Your task to perform on an android device: check google app version Image 0: 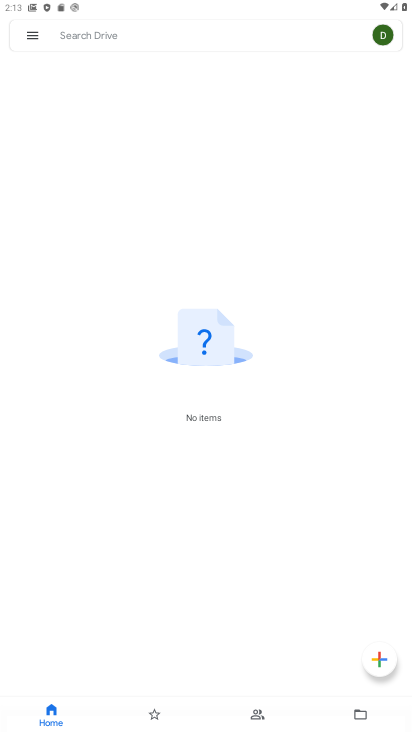
Step 0: press home button
Your task to perform on an android device: check google app version Image 1: 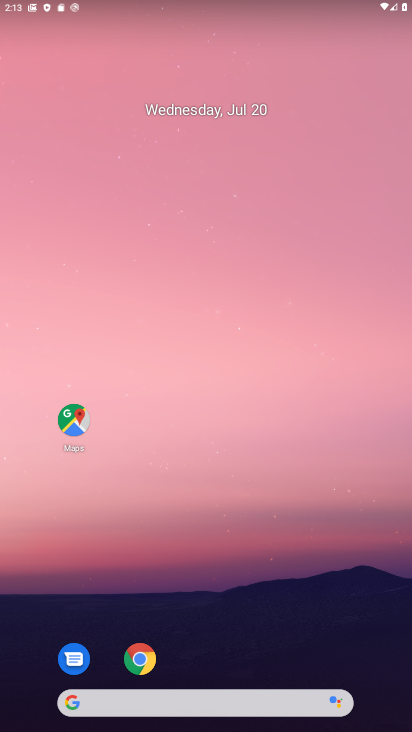
Step 1: click (145, 654)
Your task to perform on an android device: check google app version Image 2: 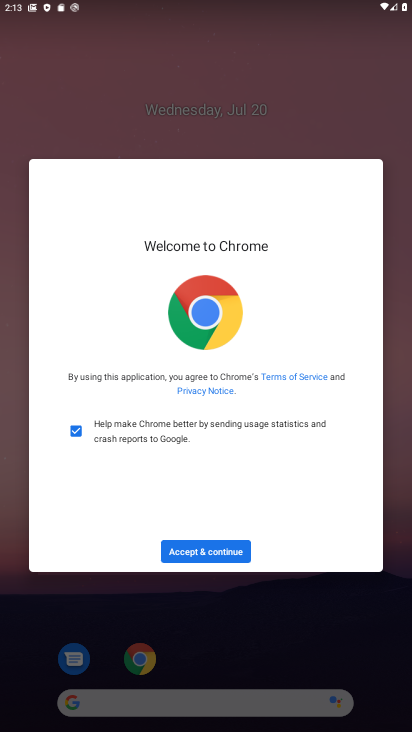
Step 2: click (212, 552)
Your task to perform on an android device: check google app version Image 3: 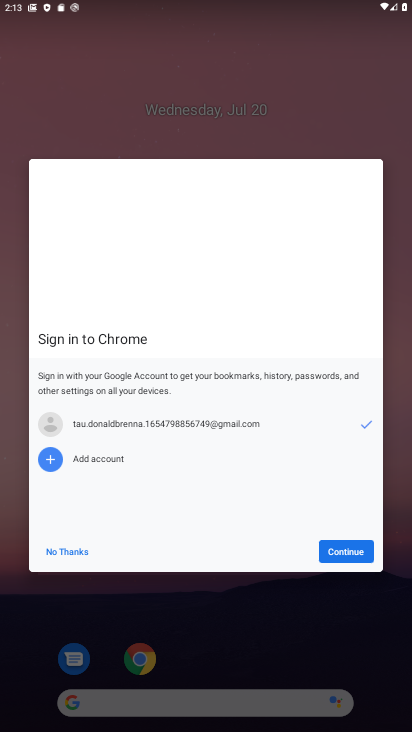
Step 3: click (344, 558)
Your task to perform on an android device: check google app version Image 4: 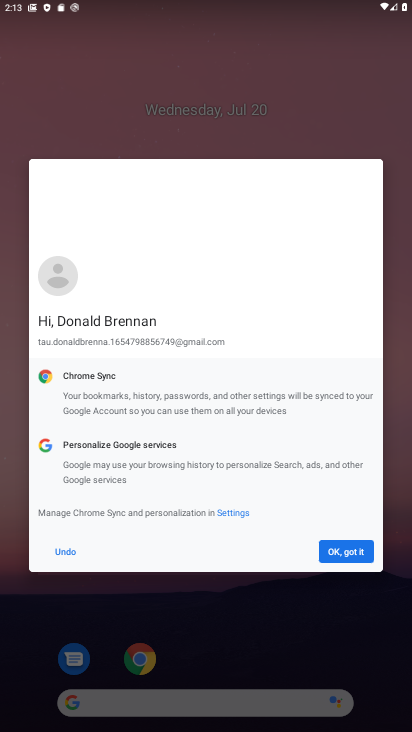
Step 4: click (344, 558)
Your task to perform on an android device: check google app version Image 5: 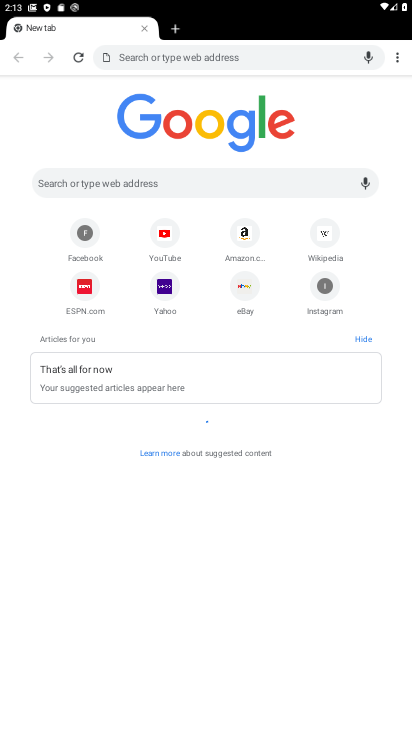
Step 5: click (390, 52)
Your task to perform on an android device: check google app version Image 6: 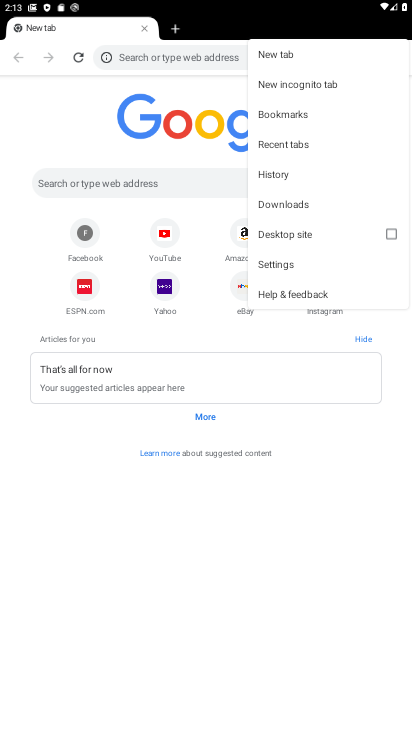
Step 6: click (306, 294)
Your task to perform on an android device: check google app version Image 7: 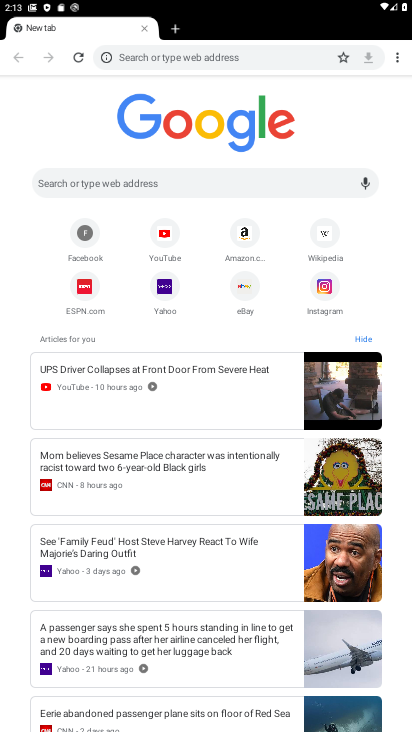
Step 7: click (400, 64)
Your task to perform on an android device: check google app version Image 8: 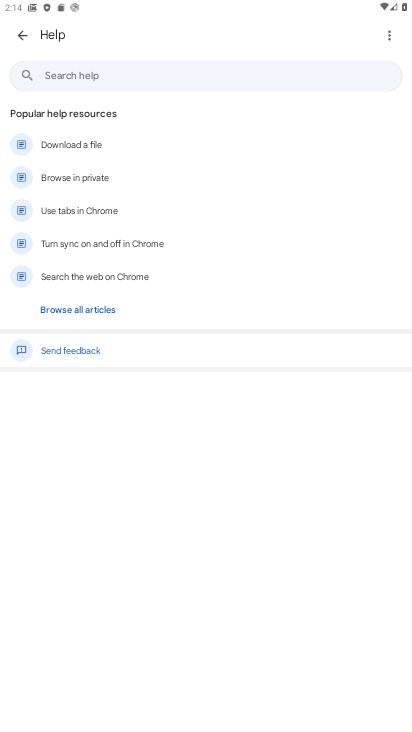
Step 8: click (396, 37)
Your task to perform on an android device: check google app version Image 9: 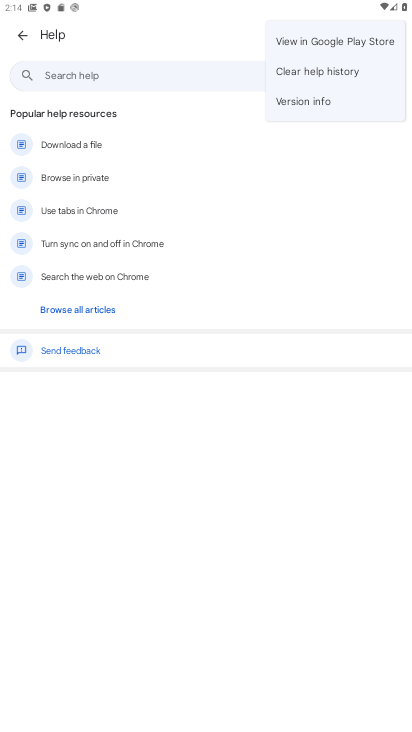
Step 9: click (360, 108)
Your task to perform on an android device: check google app version Image 10: 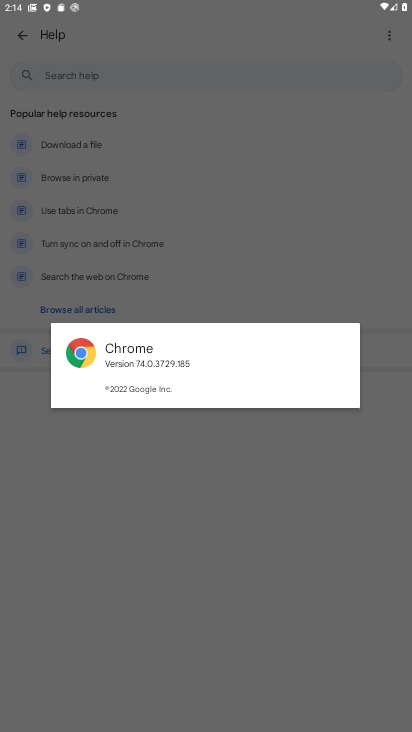
Step 10: task complete